Your task to perform on an android device: turn off improve location accuracy Image 0: 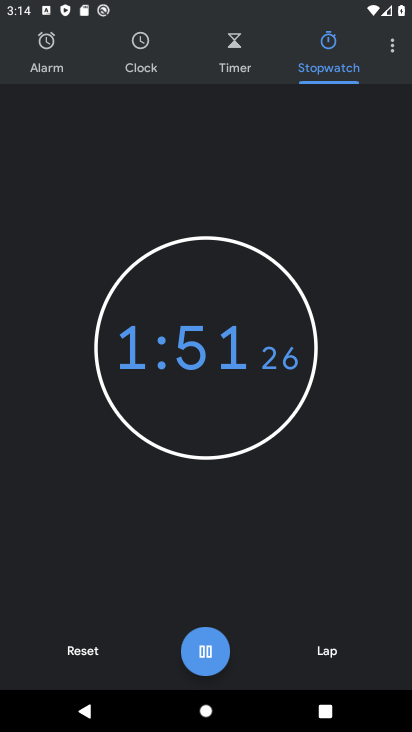
Step 0: press home button
Your task to perform on an android device: turn off improve location accuracy Image 1: 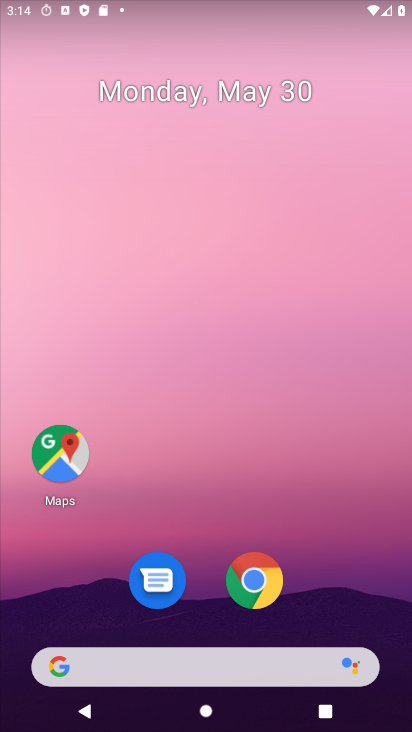
Step 1: drag from (201, 603) to (196, 0)
Your task to perform on an android device: turn off improve location accuracy Image 2: 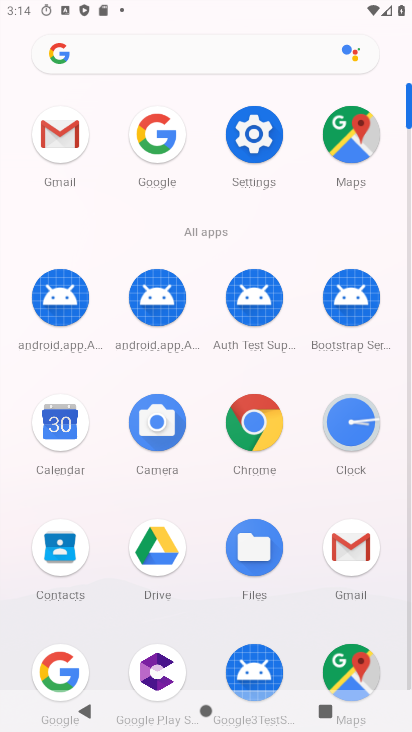
Step 2: click (249, 146)
Your task to perform on an android device: turn off improve location accuracy Image 3: 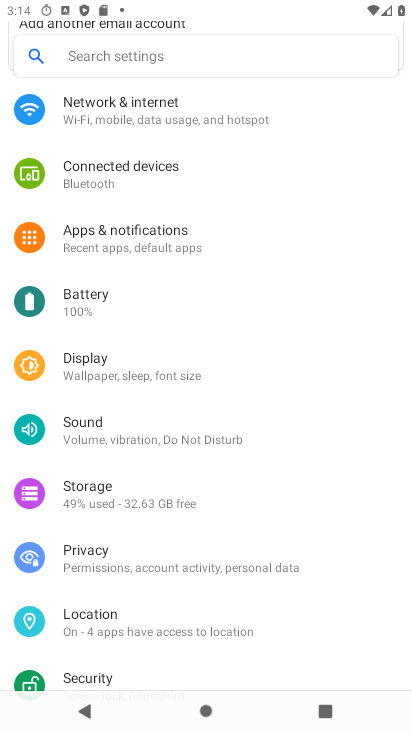
Step 3: click (111, 613)
Your task to perform on an android device: turn off improve location accuracy Image 4: 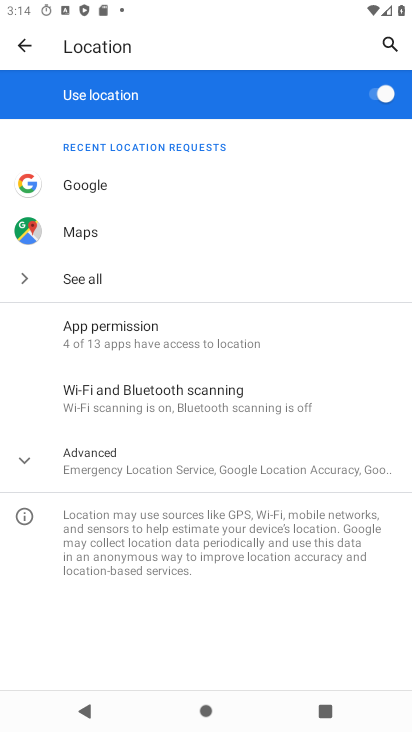
Step 4: click (106, 458)
Your task to perform on an android device: turn off improve location accuracy Image 5: 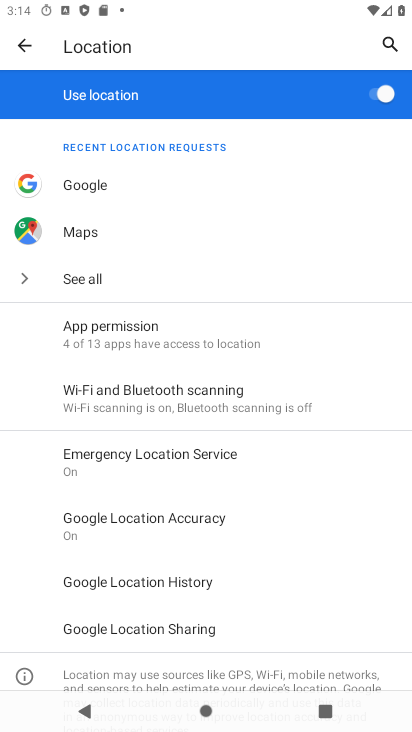
Step 5: click (135, 522)
Your task to perform on an android device: turn off improve location accuracy Image 6: 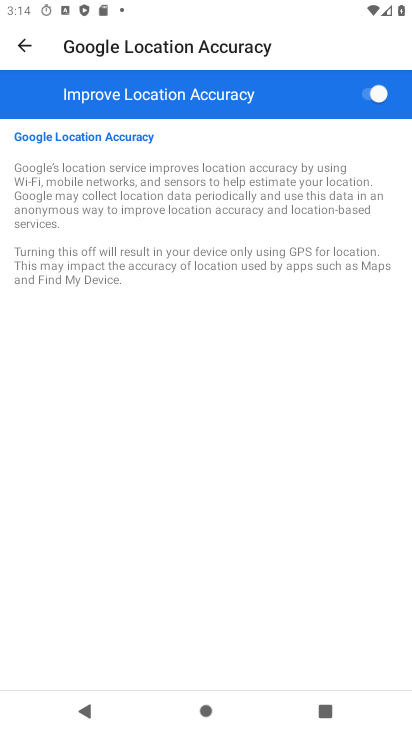
Step 6: click (364, 92)
Your task to perform on an android device: turn off improve location accuracy Image 7: 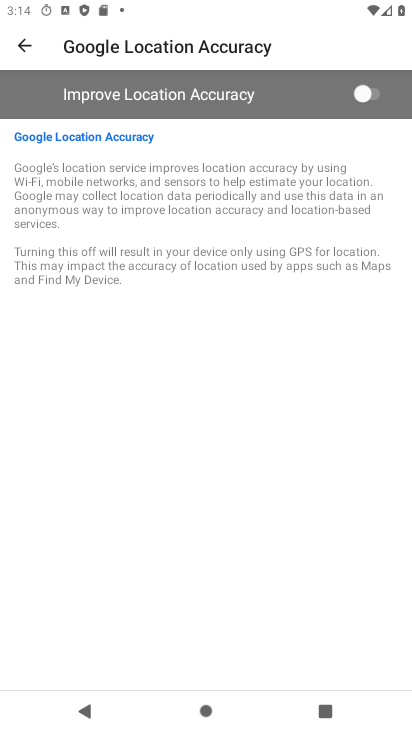
Step 7: click (363, 92)
Your task to perform on an android device: turn off improve location accuracy Image 8: 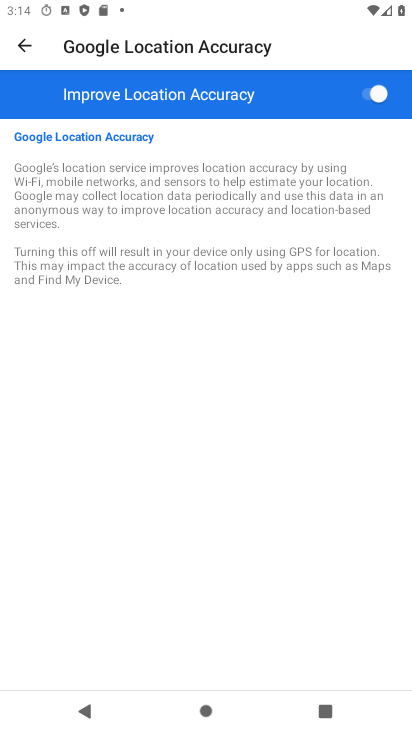
Step 8: click (376, 99)
Your task to perform on an android device: turn off improve location accuracy Image 9: 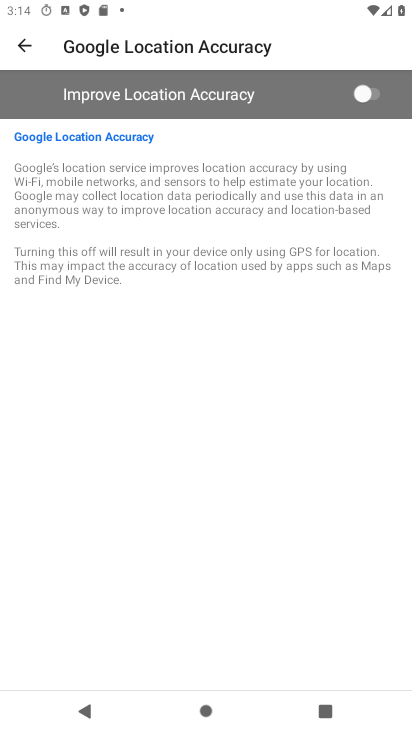
Step 9: task complete